Your task to perform on an android device: open the mobile data screen to see how much data has been used Image 0: 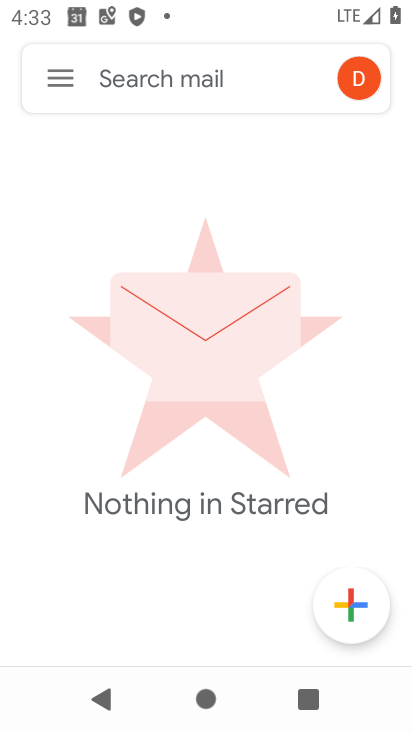
Step 0: press back button
Your task to perform on an android device: open the mobile data screen to see how much data has been used Image 1: 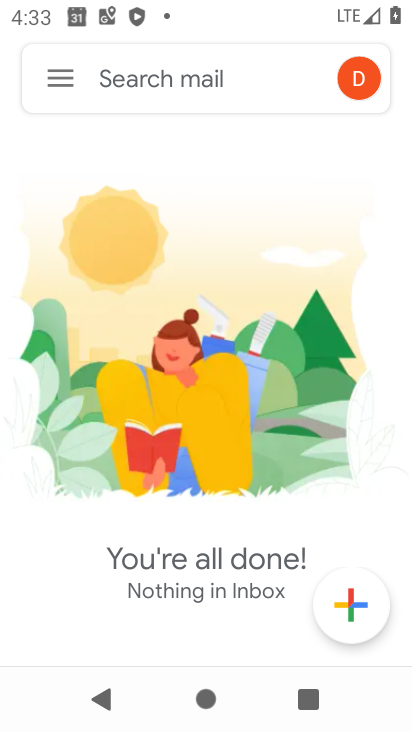
Step 1: press home button
Your task to perform on an android device: open the mobile data screen to see how much data has been used Image 2: 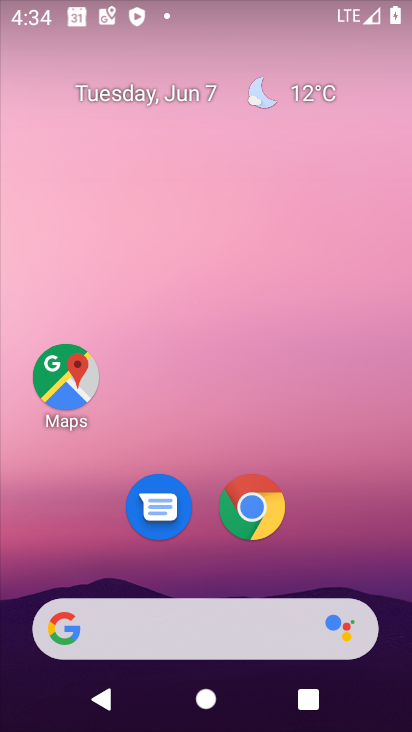
Step 2: drag from (321, 544) to (284, 29)
Your task to perform on an android device: open the mobile data screen to see how much data has been used Image 3: 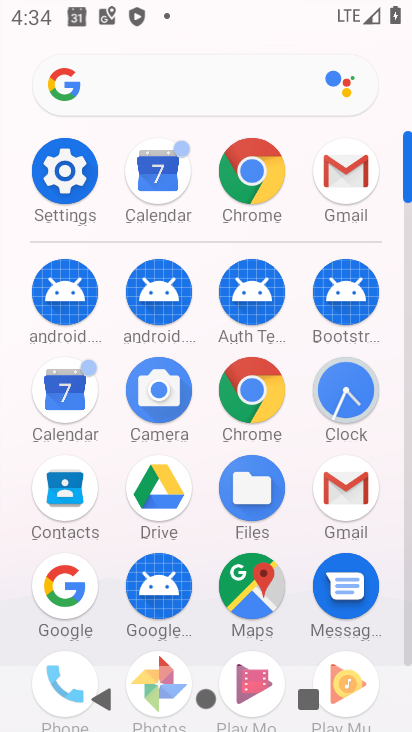
Step 3: drag from (18, 551) to (32, 241)
Your task to perform on an android device: open the mobile data screen to see how much data has been used Image 4: 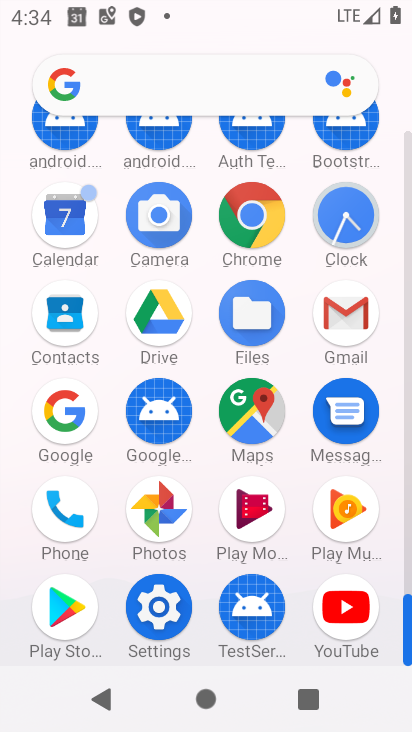
Step 4: click (157, 602)
Your task to perform on an android device: open the mobile data screen to see how much data has been used Image 5: 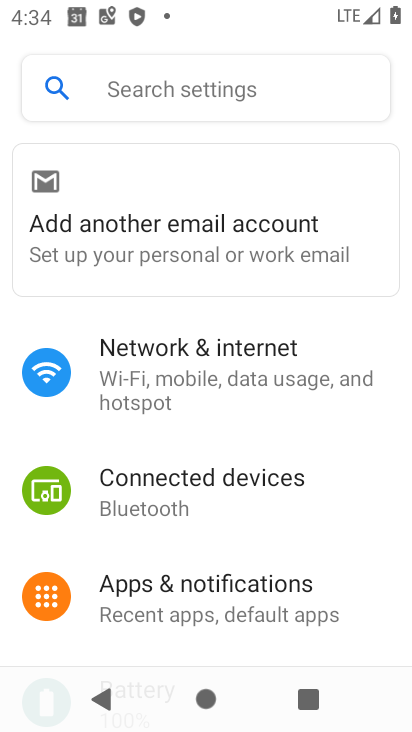
Step 5: click (196, 372)
Your task to perform on an android device: open the mobile data screen to see how much data has been used Image 6: 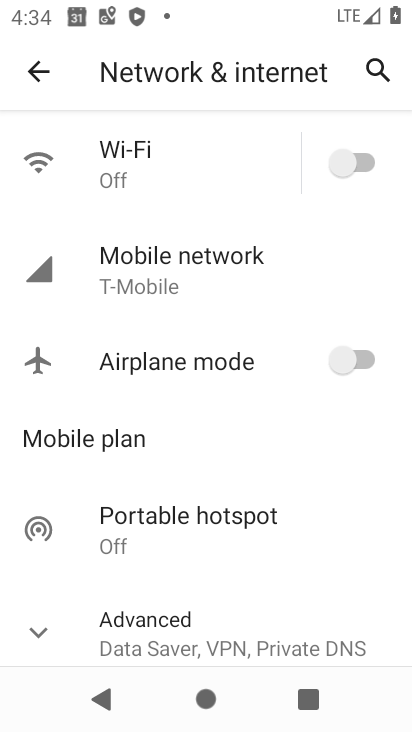
Step 6: click (183, 266)
Your task to perform on an android device: open the mobile data screen to see how much data has been used Image 7: 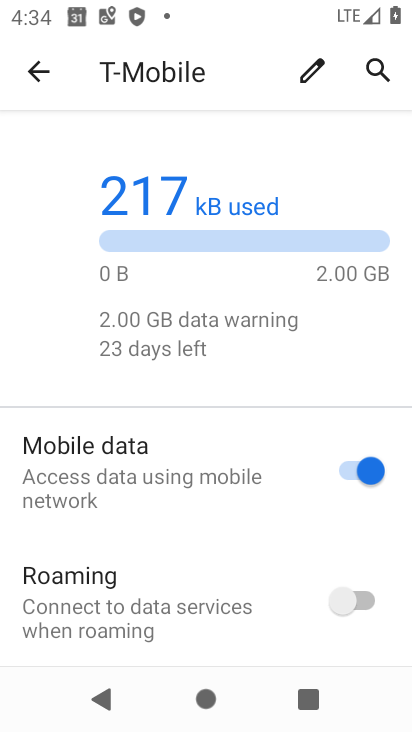
Step 7: task complete